Your task to perform on an android device: Show me popular videos on Youtube Image 0: 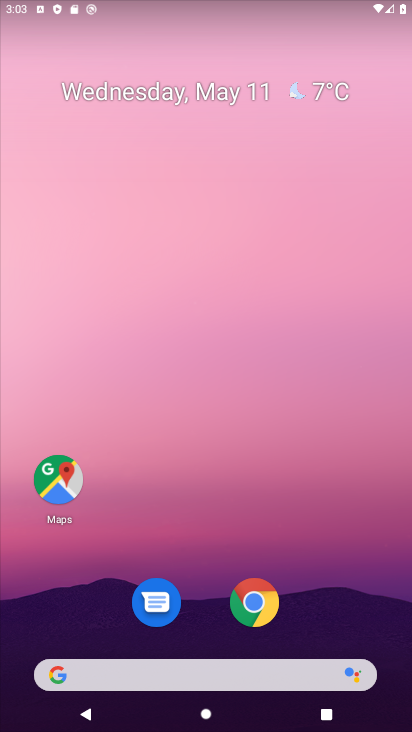
Step 0: drag from (180, 700) to (265, 228)
Your task to perform on an android device: Show me popular videos on Youtube Image 1: 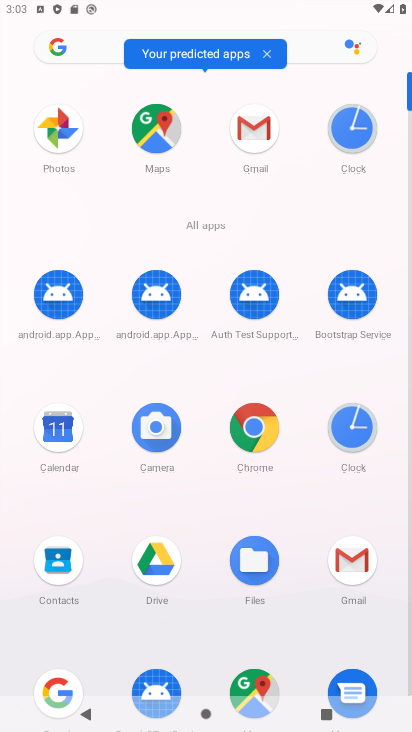
Step 1: drag from (197, 605) to (310, 36)
Your task to perform on an android device: Show me popular videos on Youtube Image 2: 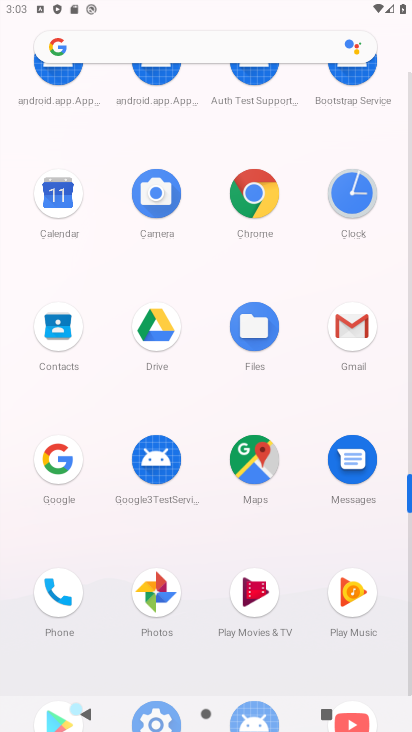
Step 2: drag from (355, 720) to (385, 528)
Your task to perform on an android device: Show me popular videos on Youtube Image 3: 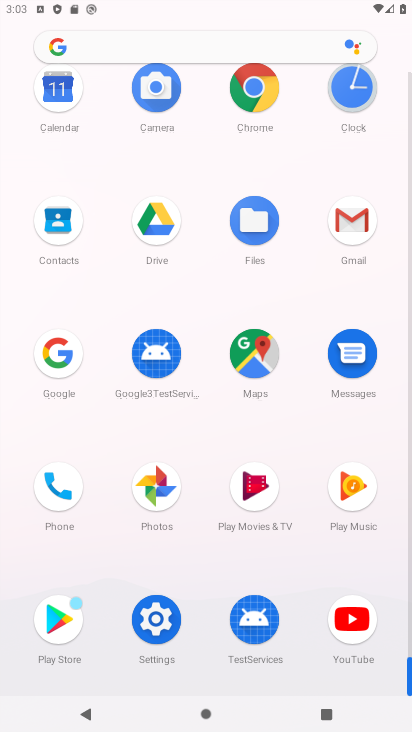
Step 3: click (361, 619)
Your task to perform on an android device: Show me popular videos on Youtube Image 4: 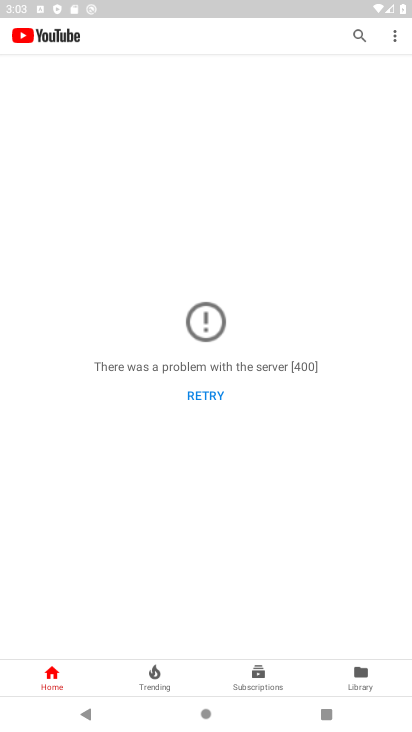
Step 4: click (198, 393)
Your task to perform on an android device: Show me popular videos on Youtube Image 5: 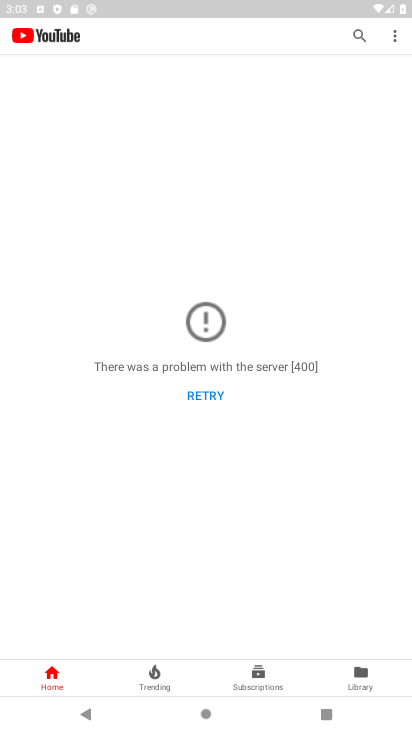
Step 5: task complete